Your task to perform on an android device: check storage Image 0: 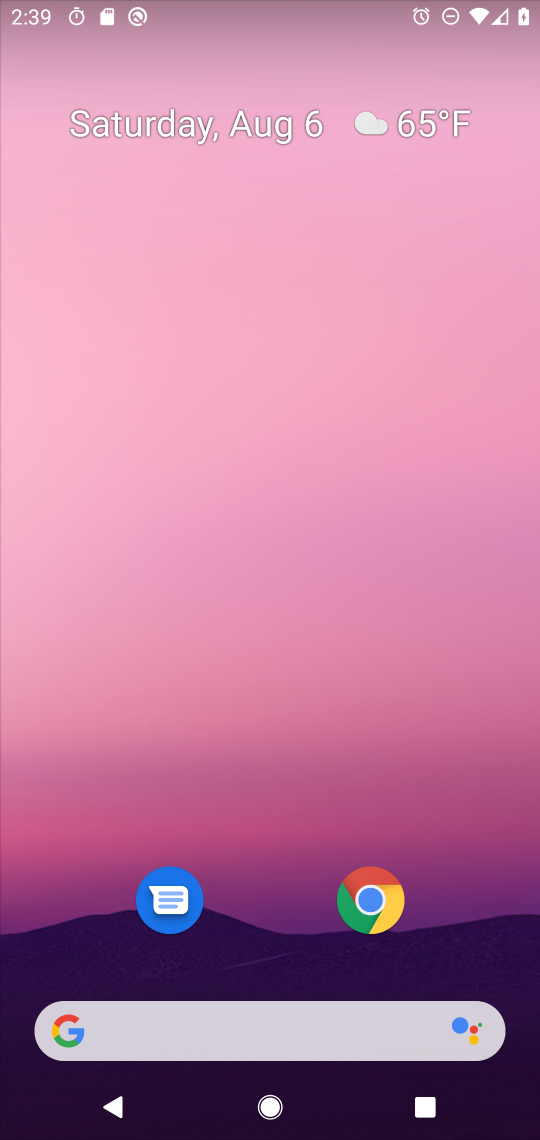
Step 0: drag from (268, 968) to (316, 301)
Your task to perform on an android device: check storage Image 1: 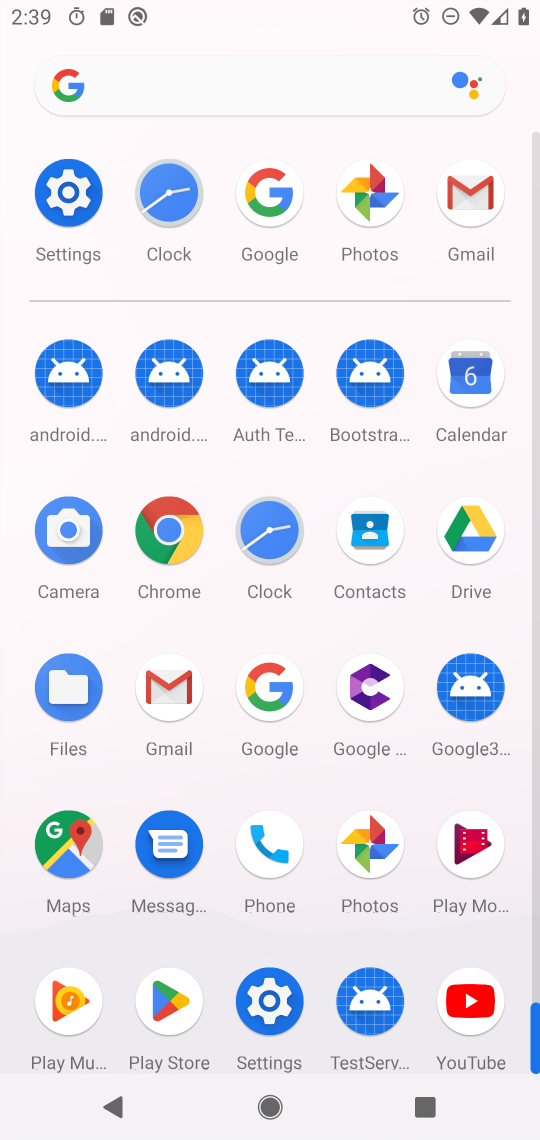
Step 1: click (291, 538)
Your task to perform on an android device: check storage Image 2: 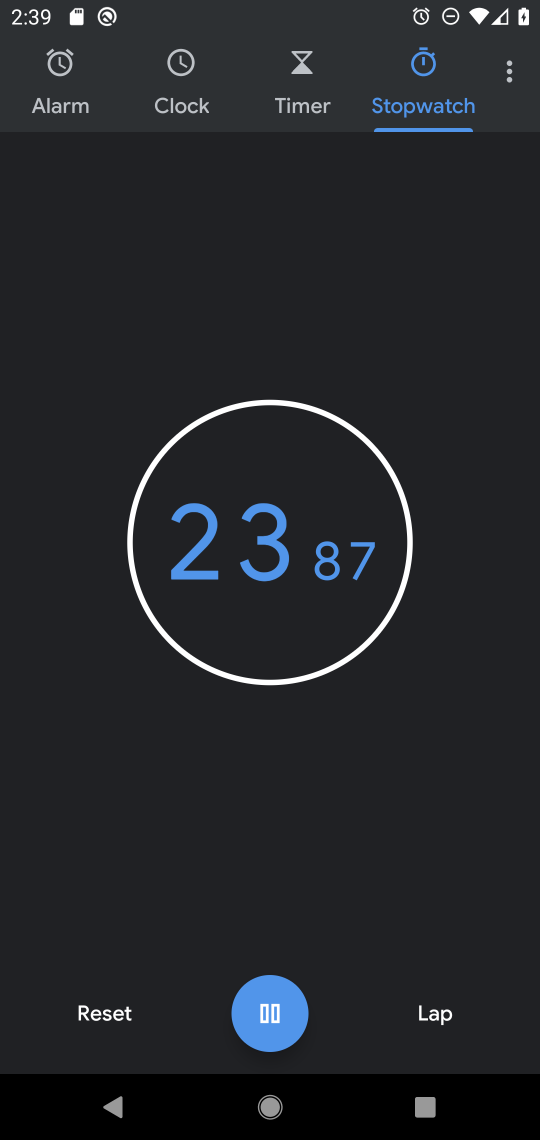
Step 2: press home button
Your task to perform on an android device: check storage Image 3: 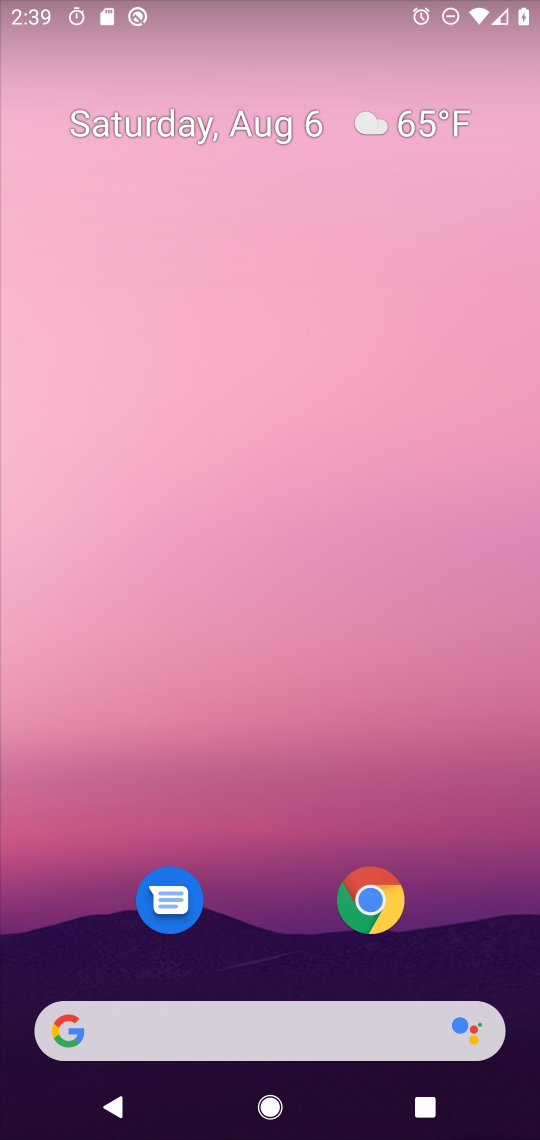
Step 3: drag from (278, 958) to (267, 340)
Your task to perform on an android device: check storage Image 4: 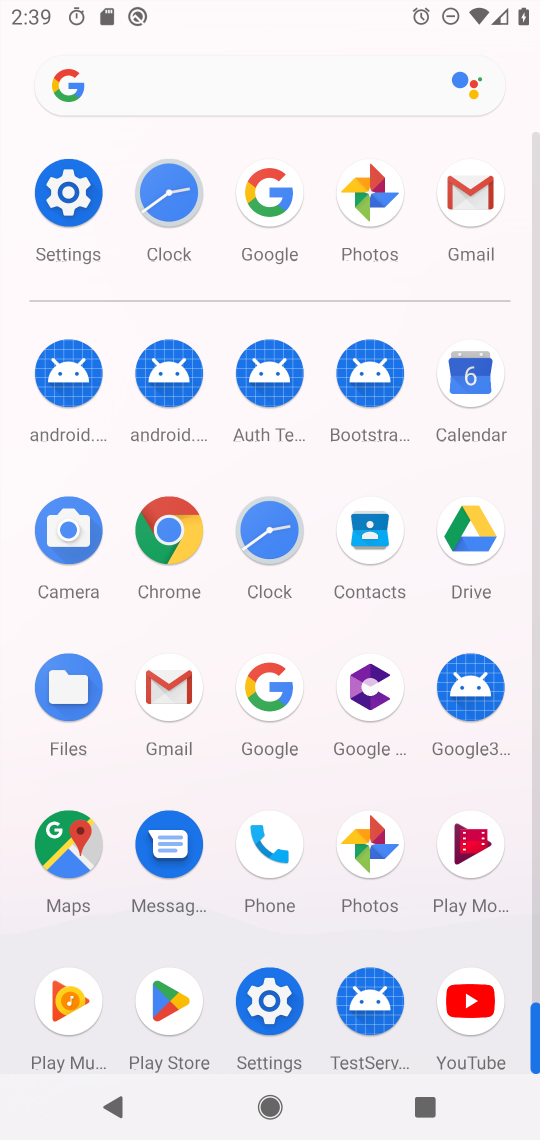
Step 4: click (61, 196)
Your task to perform on an android device: check storage Image 5: 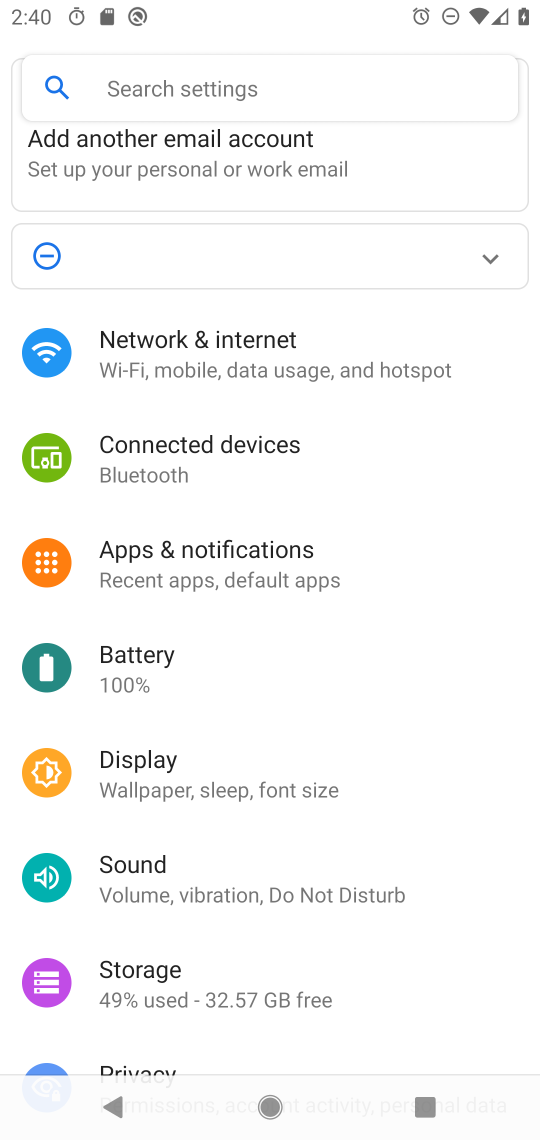
Step 5: click (144, 983)
Your task to perform on an android device: check storage Image 6: 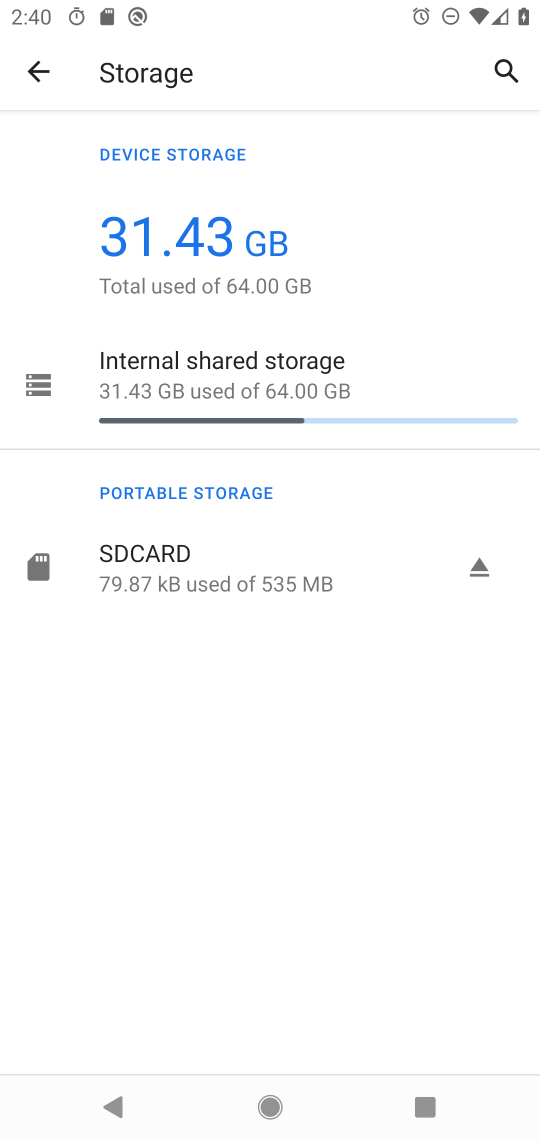
Step 6: task complete